Your task to perform on an android device: delete location history Image 0: 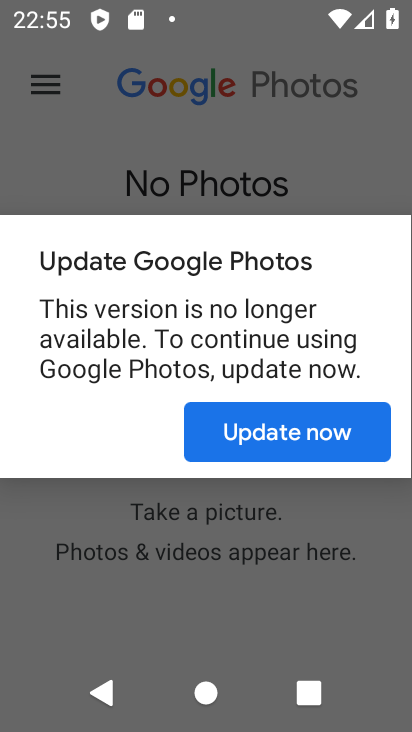
Step 0: press home button
Your task to perform on an android device: delete location history Image 1: 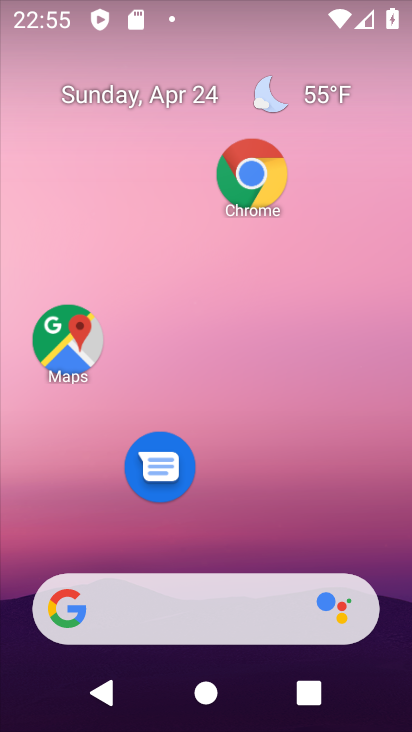
Step 1: drag from (255, 523) to (256, 17)
Your task to perform on an android device: delete location history Image 2: 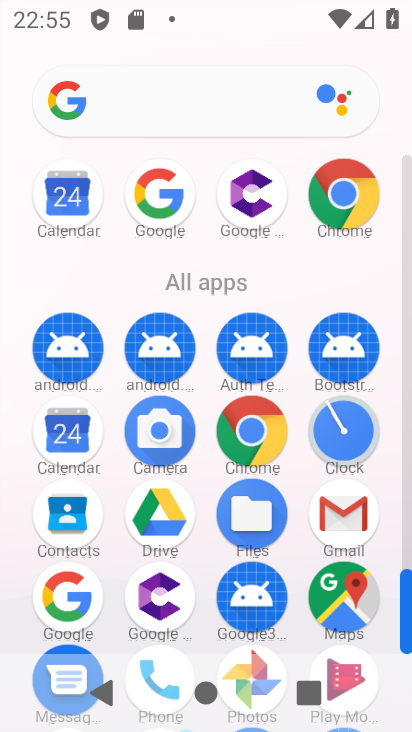
Step 2: drag from (203, 643) to (210, 137)
Your task to perform on an android device: delete location history Image 3: 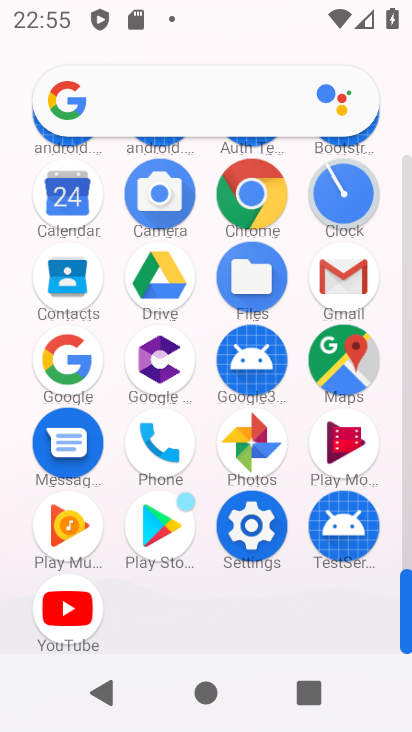
Step 3: click (251, 532)
Your task to perform on an android device: delete location history Image 4: 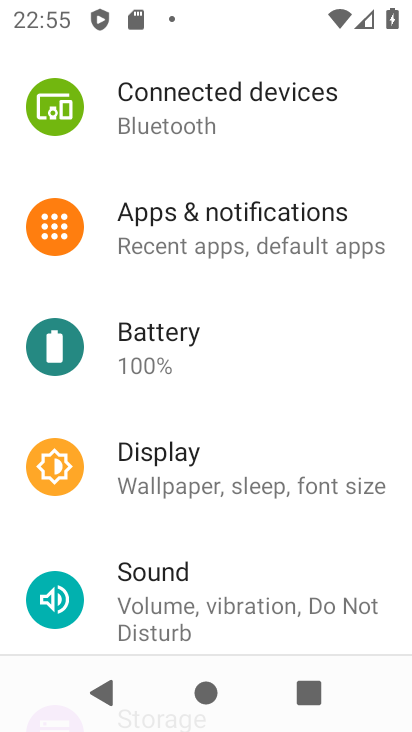
Step 4: drag from (257, 557) to (276, 118)
Your task to perform on an android device: delete location history Image 5: 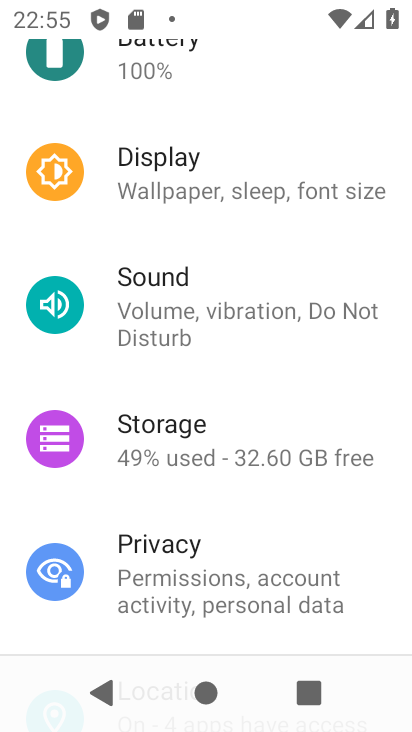
Step 5: drag from (218, 628) to (261, 279)
Your task to perform on an android device: delete location history Image 6: 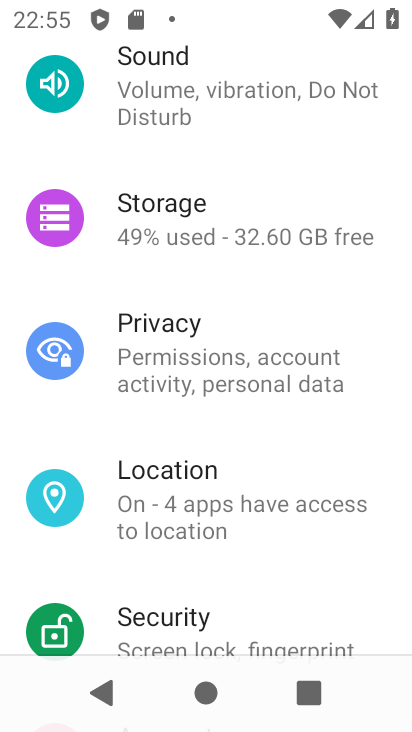
Step 6: click (169, 501)
Your task to perform on an android device: delete location history Image 7: 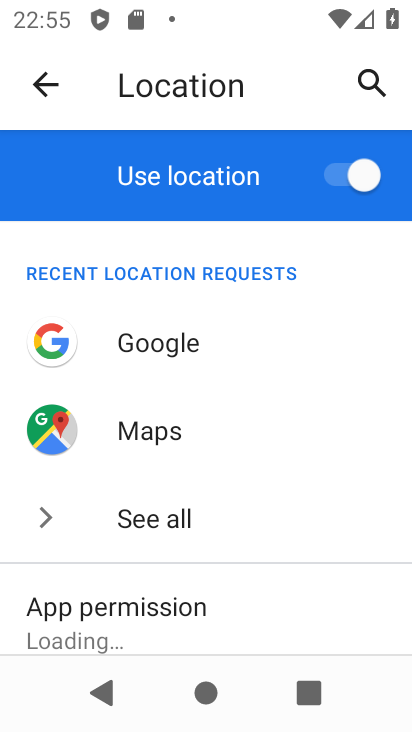
Step 7: drag from (248, 539) to (275, 113)
Your task to perform on an android device: delete location history Image 8: 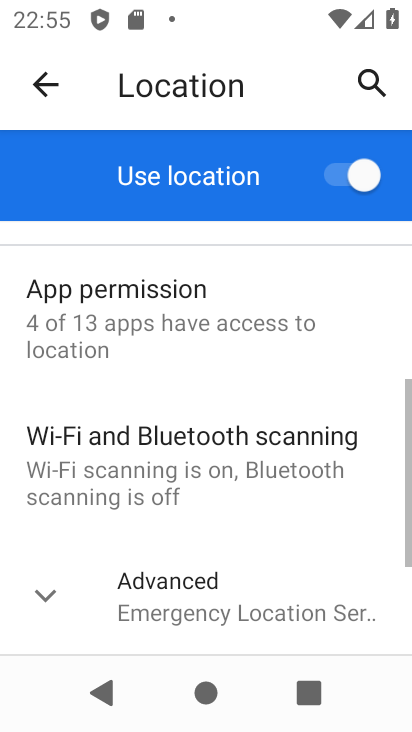
Step 8: drag from (211, 546) to (238, 258)
Your task to perform on an android device: delete location history Image 9: 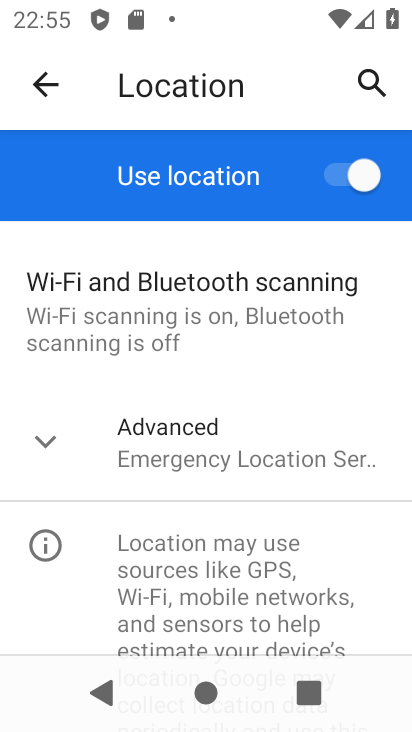
Step 9: click (203, 452)
Your task to perform on an android device: delete location history Image 10: 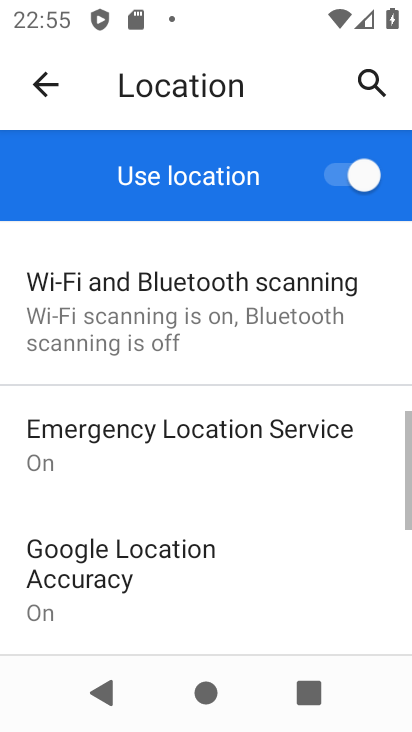
Step 10: drag from (287, 440) to (304, 244)
Your task to perform on an android device: delete location history Image 11: 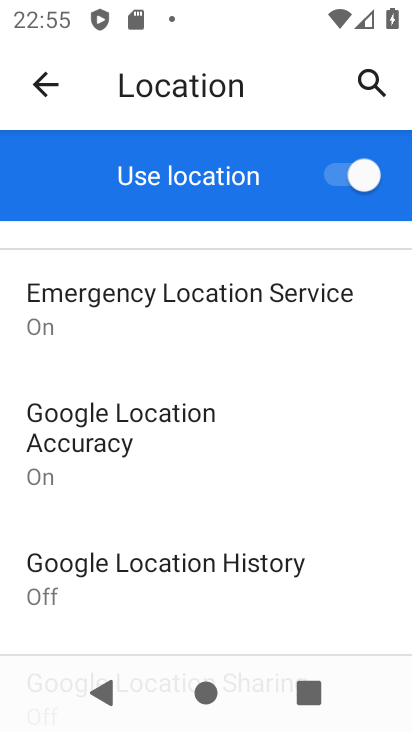
Step 11: click (174, 579)
Your task to perform on an android device: delete location history Image 12: 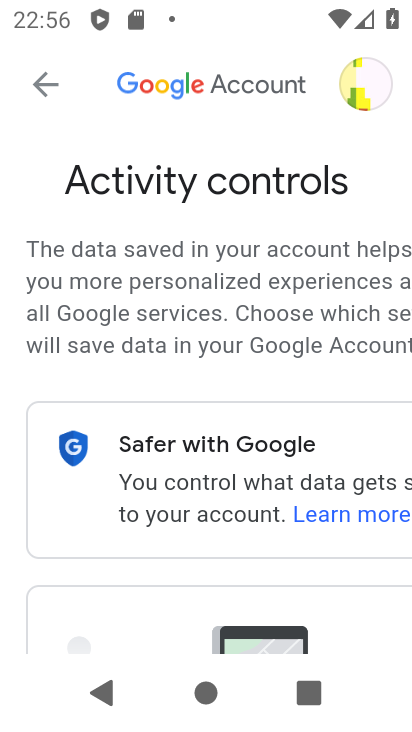
Step 12: drag from (285, 468) to (270, 65)
Your task to perform on an android device: delete location history Image 13: 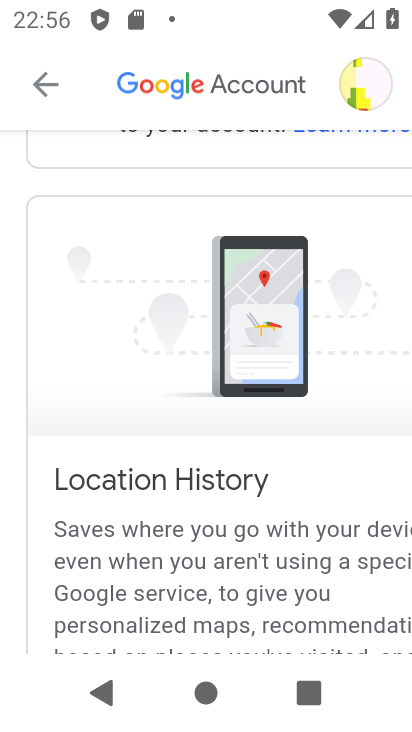
Step 13: drag from (210, 510) to (320, 125)
Your task to perform on an android device: delete location history Image 14: 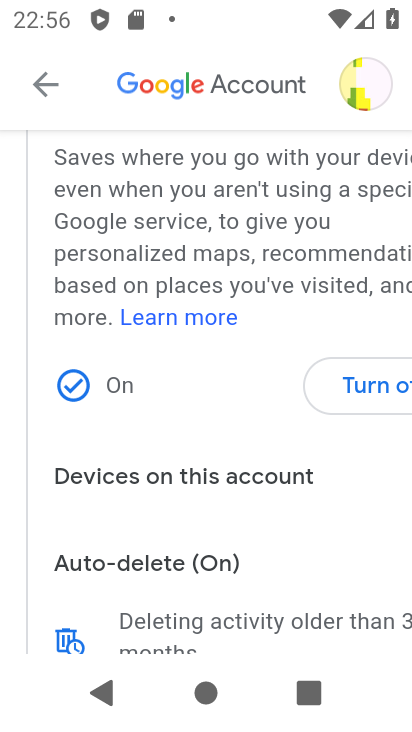
Step 14: drag from (170, 579) to (153, 228)
Your task to perform on an android device: delete location history Image 15: 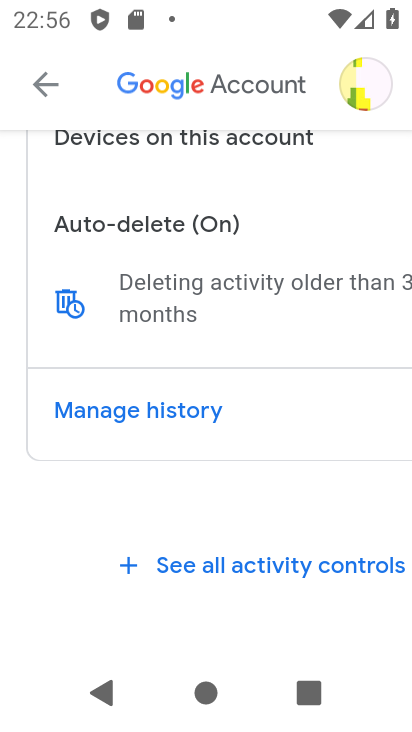
Step 15: click (74, 297)
Your task to perform on an android device: delete location history Image 16: 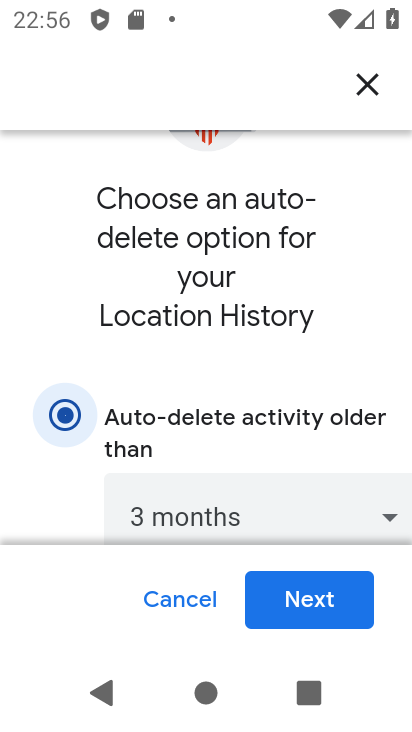
Step 16: click (310, 590)
Your task to perform on an android device: delete location history Image 17: 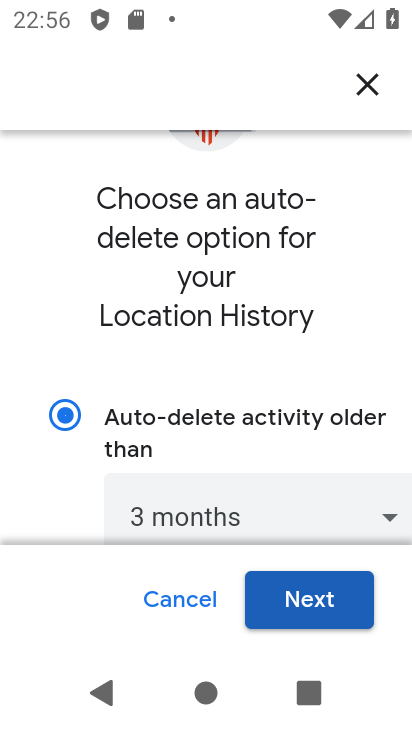
Step 17: click (325, 605)
Your task to perform on an android device: delete location history Image 18: 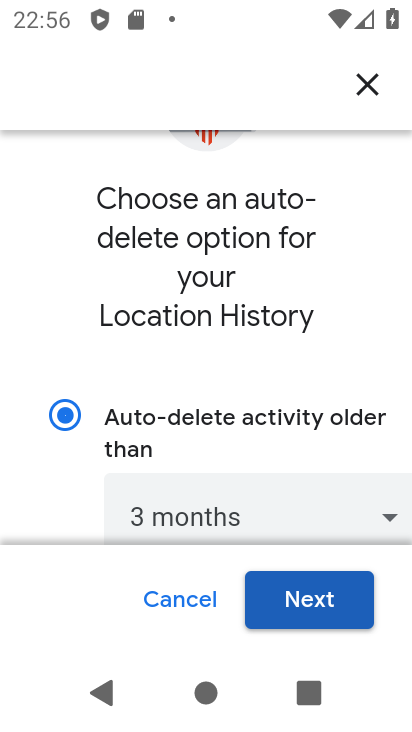
Step 18: click (325, 605)
Your task to perform on an android device: delete location history Image 19: 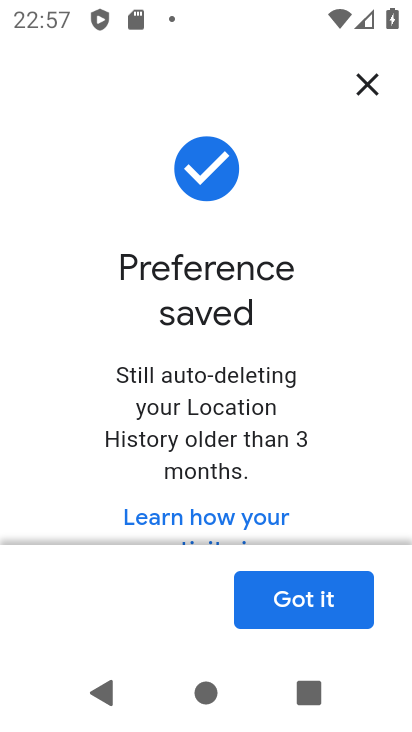
Step 19: task complete